Your task to perform on an android device: open the mobile data screen to see how much data has been used Image 0: 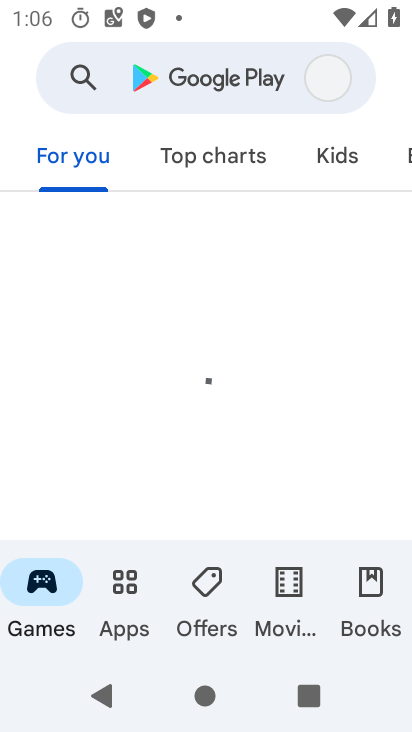
Step 0: press home button
Your task to perform on an android device: open the mobile data screen to see how much data has been used Image 1: 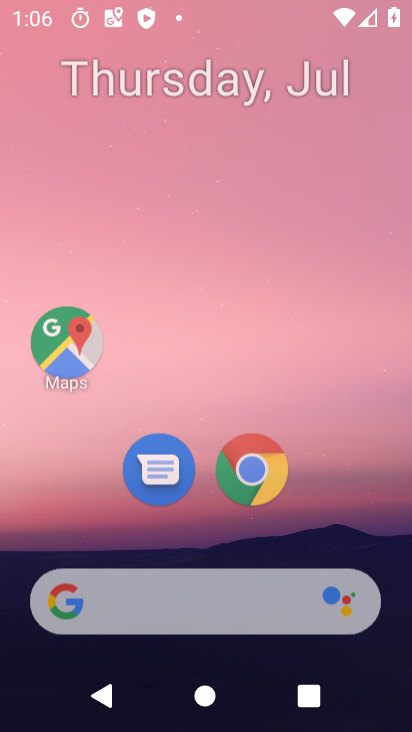
Step 1: drag from (218, 606) to (310, 223)
Your task to perform on an android device: open the mobile data screen to see how much data has been used Image 2: 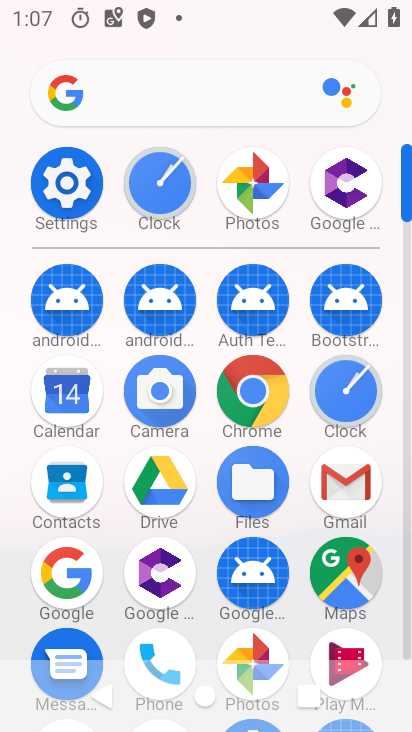
Step 2: drag from (241, 503) to (249, 249)
Your task to perform on an android device: open the mobile data screen to see how much data has been used Image 3: 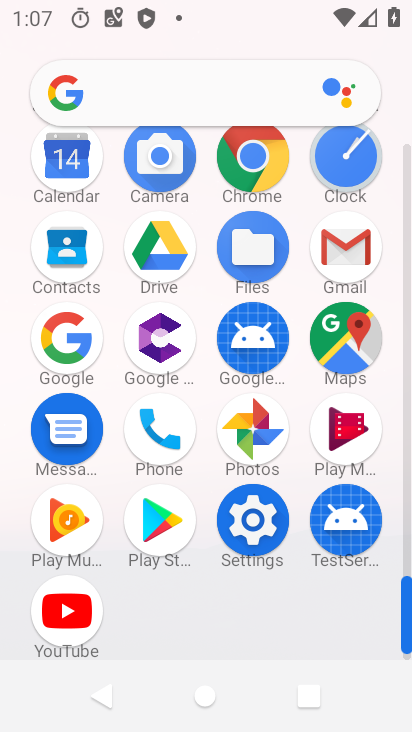
Step 3: click (259, 519)
Your task to perform on an android device: open the mobile data screen to see how much data has been used Image 4: 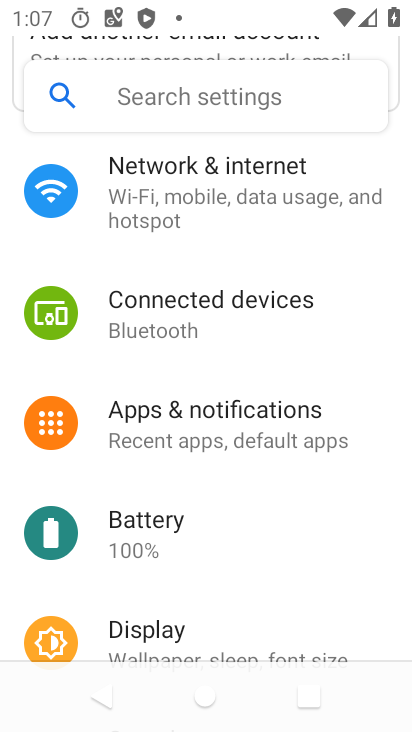
Step 4: drag from (225, 260) to (232, 643)
Your task to perform on an android device: open the mobile data screen to see how much data has been used Image 5: 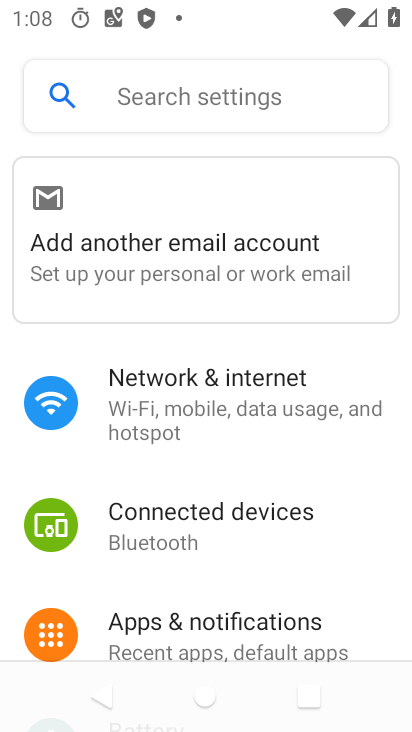
Step 5: click (211, 388)
Your task to perform on an android device: open the mobile data screen to see how much data has been used Image 6: 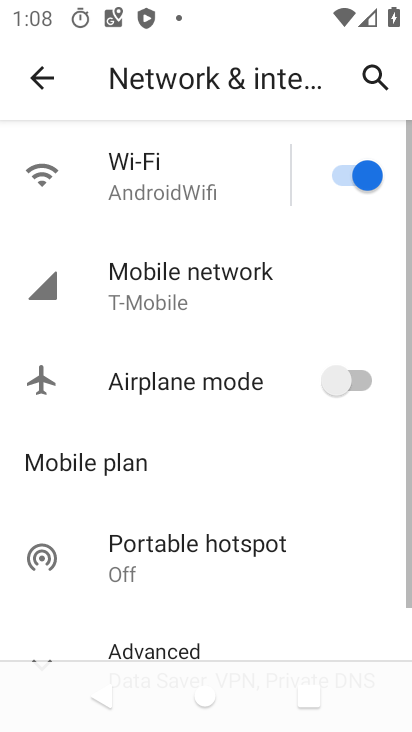
Step 6: click (152, 294)
Your task to perform on an android device: open the mobile data screen to see how much data has been used Image 7: 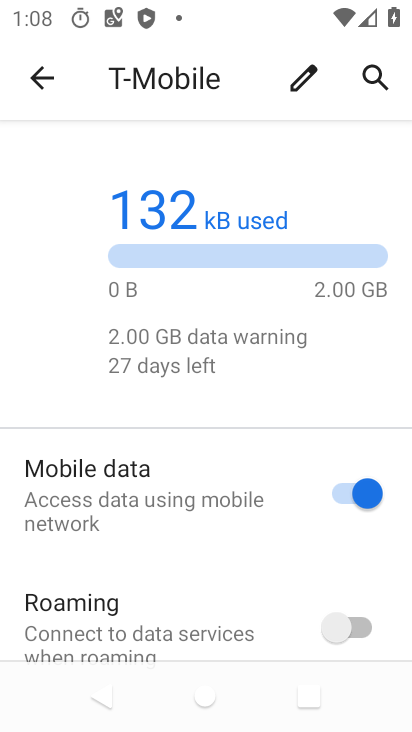
Step 7: drag from (138, 527) to (154, 271)
Your task to perform on an android device: open the mobile data screen to see how much data has been used Image 8: 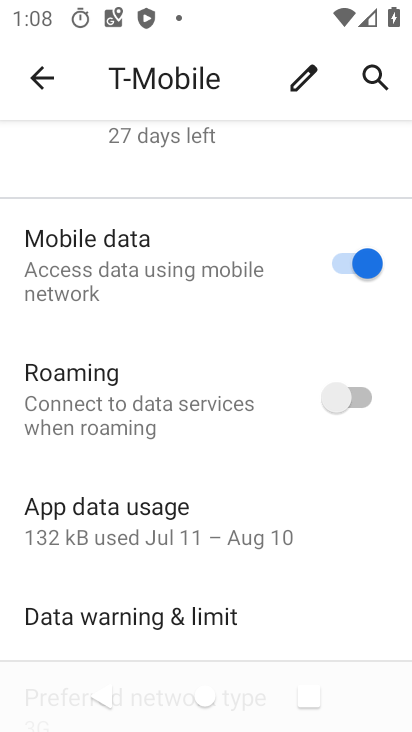
Step 8: drag from (179, 528) to (192, 298)
Your task to perform on an android device: open the mobile data screen to see how much data has been used Image 9: 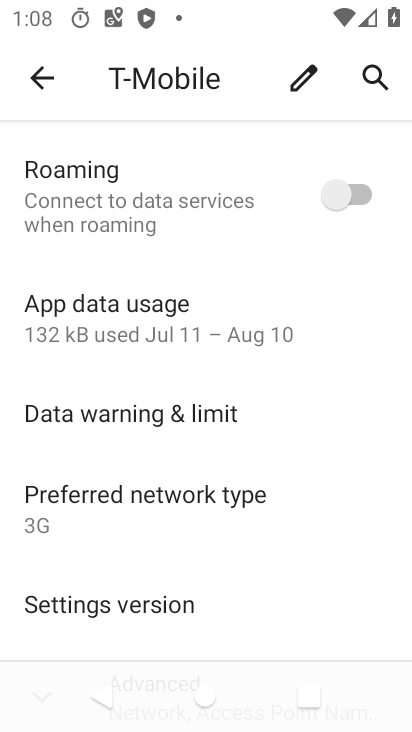
Step 9: click (180, 321)
Your task to perform on an android device: open the mobile data screen to see how much data has been used Image 10: 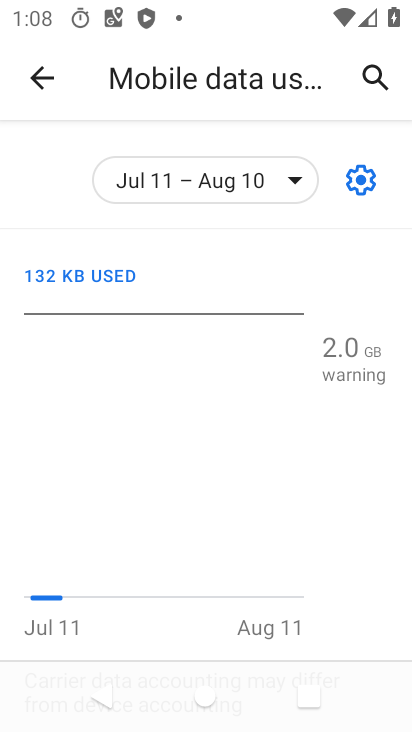
Step 10: task complete